Your task to perform on an android device: change the upload size in google photos Image 0: 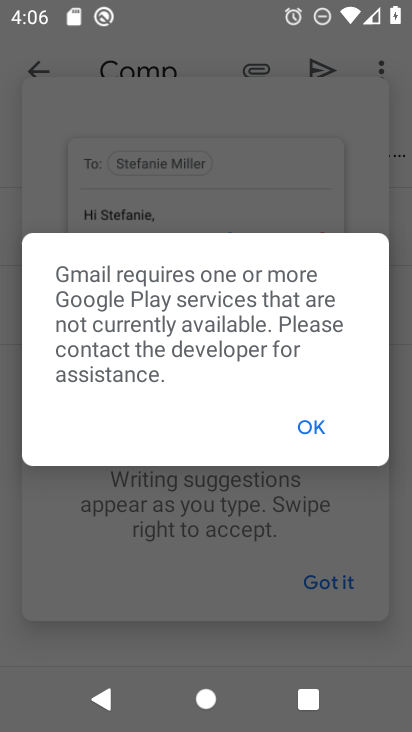
Step 0: press home button
Your task to perform on an android device: change the upload size in google photos Image 1: 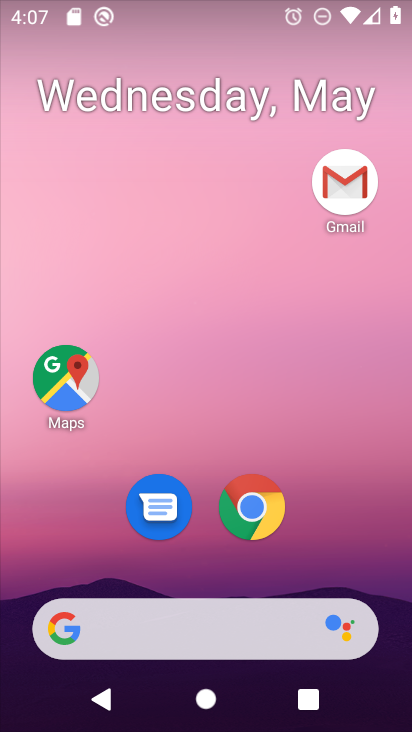
Step 1: drag from (279, 586) to (244, 67)
Your task to perform on an android device: change the upload size in google photos Image 2: 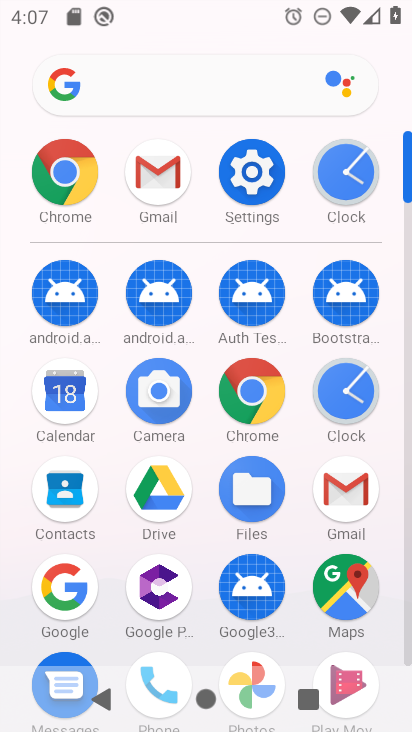
Step 2: drag from (284, 640) to (255, 417)
Your task to perform on an android device: change the upload size in google photos Image 3: 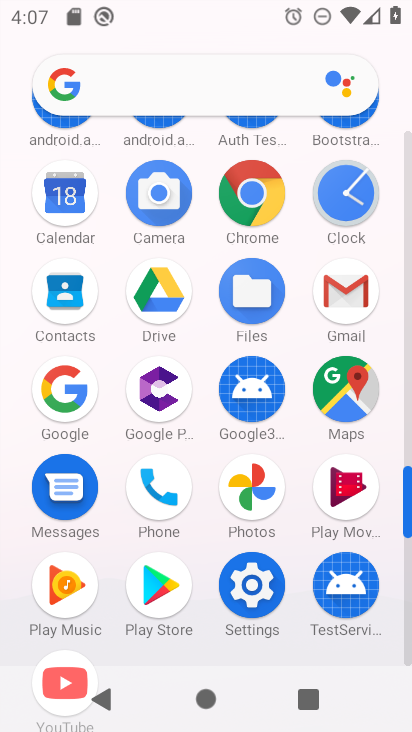
Step 3: click (262, 497)
Your task to perform on an android device: change the upload size in google photos Image 4: 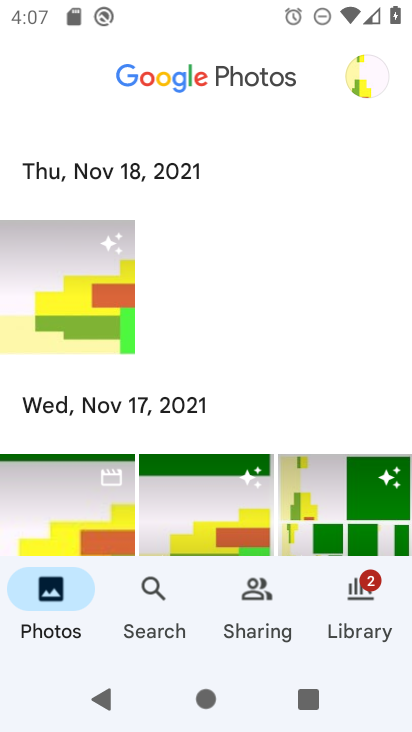
Step 4: click (361, 82)
Your task to perform on an android device: change the upload size in google photos Image 5: 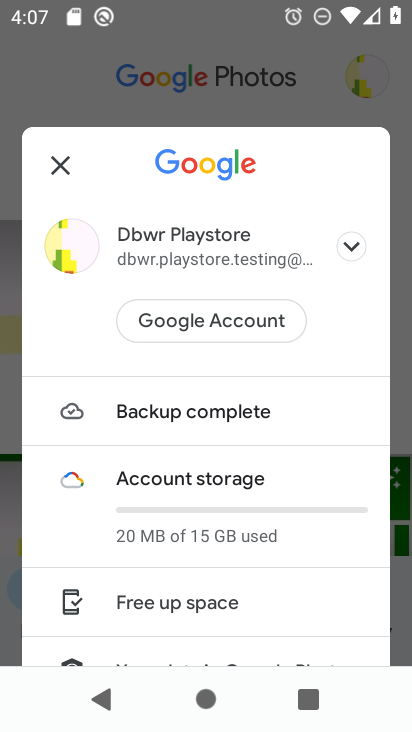
Step 5: drag from (254, 543) to (269, 137)
Your task to perform on an android device: change the upload size in google photos Image 6: 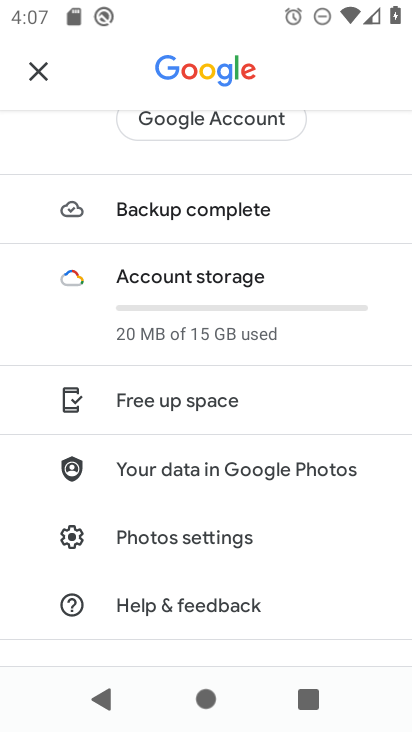
Step 6: click (208, 552)
Your task to perform on an android device: change the upload size in google photos Image 7: 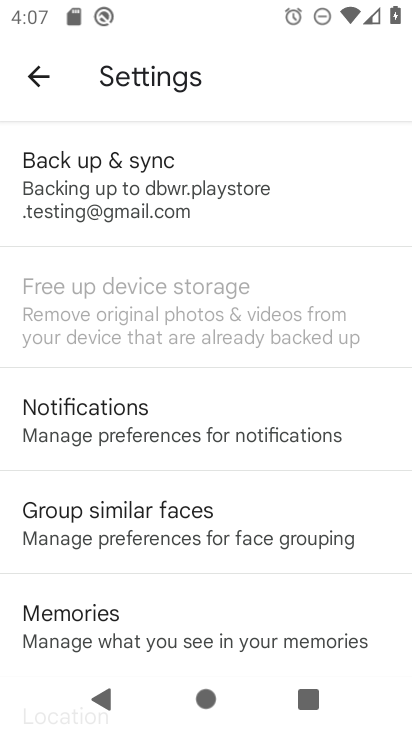
Step 7: click (215, 194)
Your task to perform on an android device: change the upload size in google photos Image 8: 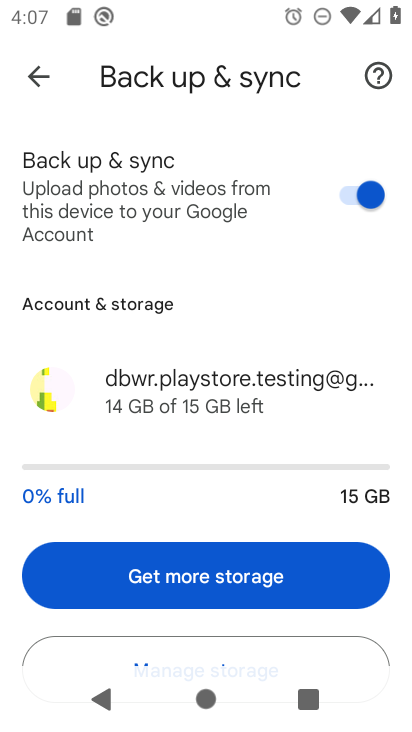
Step 8: drag from (228, 509) to (239, 190)
Your task to perform on an android device: change the upload size in google photos Image 9: 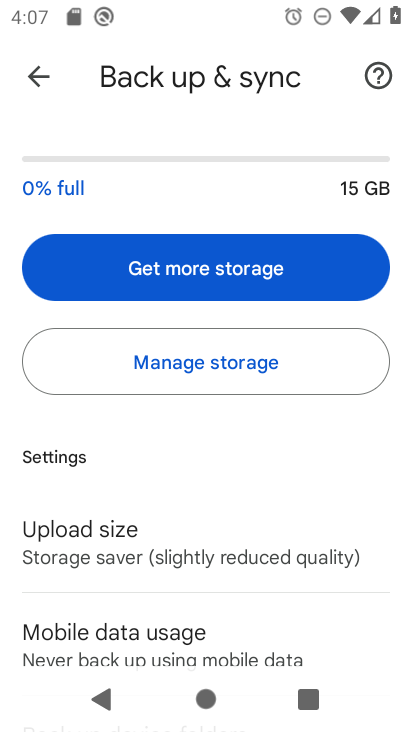
Step 9: drag from (266, 617) to (267, 383)
Your task to perform on an android device: change the upload size in google photos Image 10: 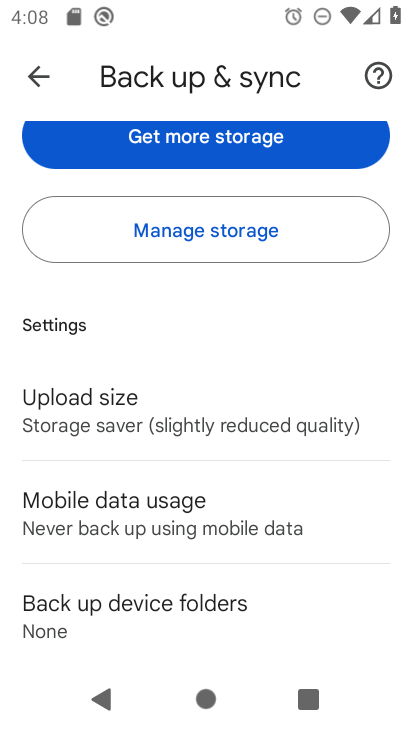
Step 10: click (216, 415)
Your task to perform on an android device: change the upload size in google photos Image 11: 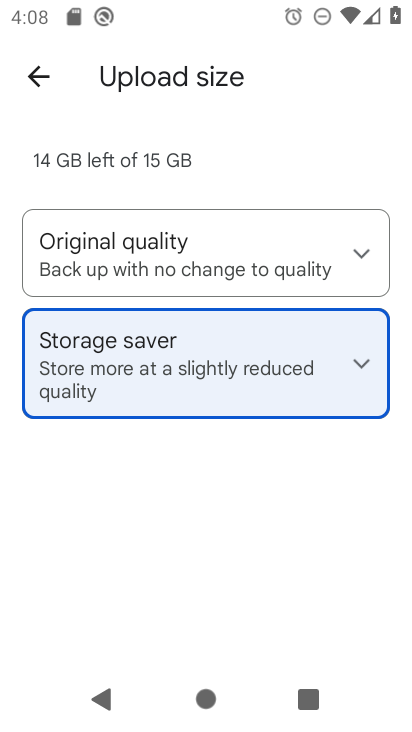
Step 11: click (210, 255)
Your task to perform on an android device: change the upload size in google photos Image 12: 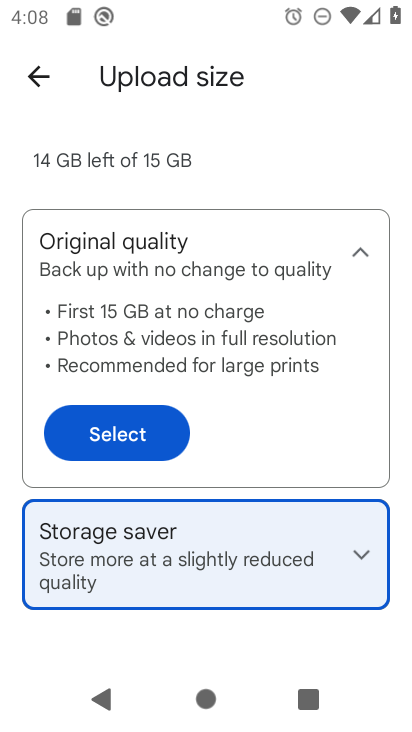
Step 12: click (96, 443)
Your task to perform on an android device: change the upload size in google photos Image 13: 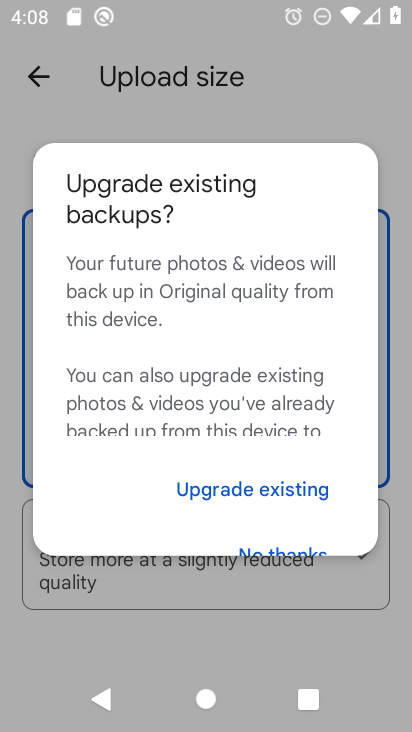
Step 13: click (260, 492)
Your task to perform on an android device: change the upload size in google photos Image 14: 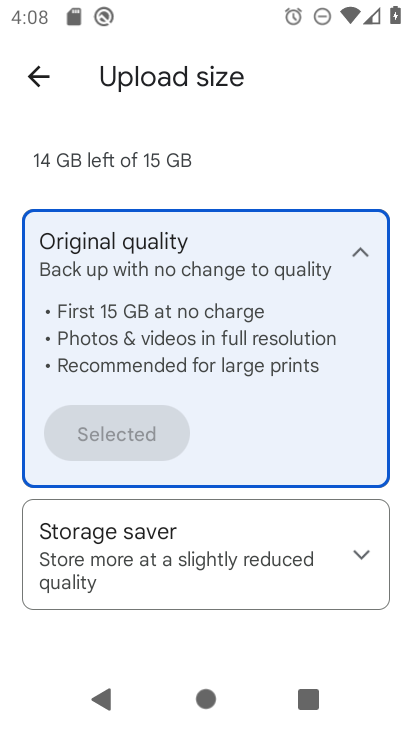
Step 14: task complete